Your task to perform on an android device: What is the price of a 12' ladder at Home Depot? Image 0: 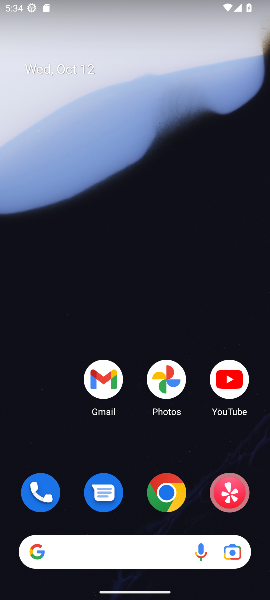
Step 0: click (171, 496)
Your task to perform on an android device: What is the price of a 12' ladder at Home Depot? Image 1: 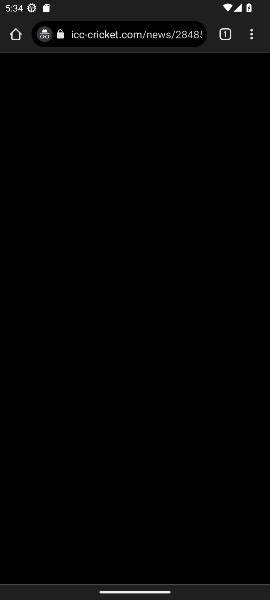
Step 1: click (106, 34)
Your task to perform on an android device: What is the price of a 12' ladder at Home Depot? Image 2: 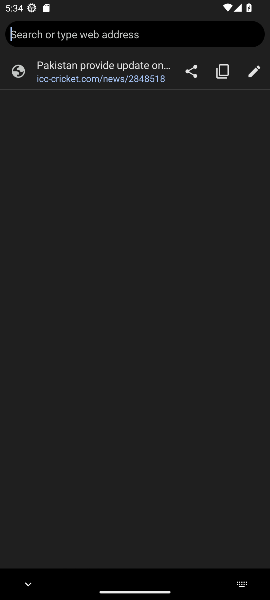
Step 2: type "price of a 12' ladder at Home Depot"
Your task to perform on an android device: What is the price of a 12' ladder at Home Depot? Image 3: 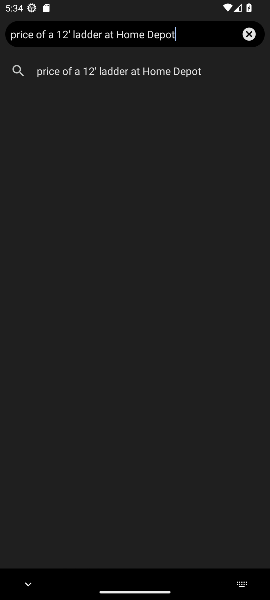
Step 3: click (89, 71)
Your task to perform on an android device: What is the price of a 12' ladder at Home Depot? Image 4: 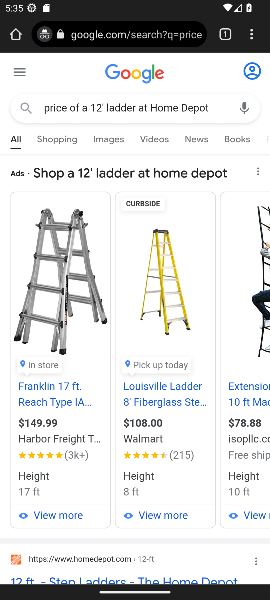
Step 4: task complete